Your task to perform on an android device: Search for vegetarian restaurants on Maps Image 0: 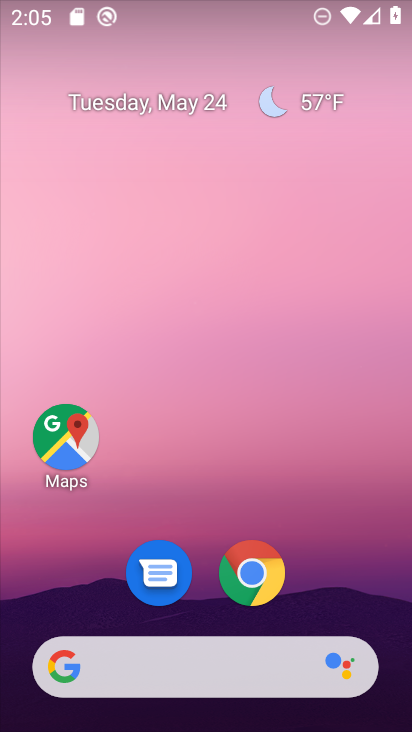
Step 0: drag from (383, 610) to (301, 237)
Your task to perform on an android device: Search for vegetarian restaurants on Maps Image 1: 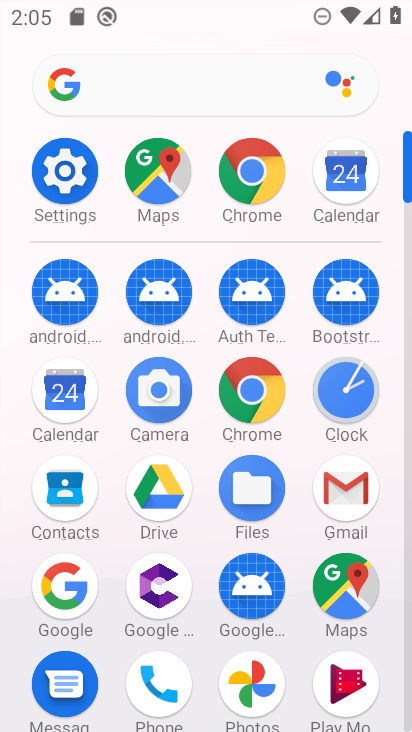
Step 1: click (335, 588)
Your task to perform on an android device: Search for vegetarian restaurants on Maps Image 2: 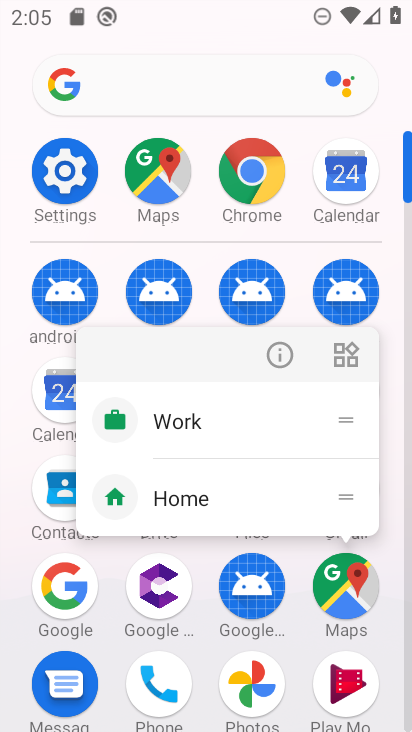
Step 2: click (337, 589)
Your task to perform on an android device: Search for vegetarian restaurants on Maps Image 3: 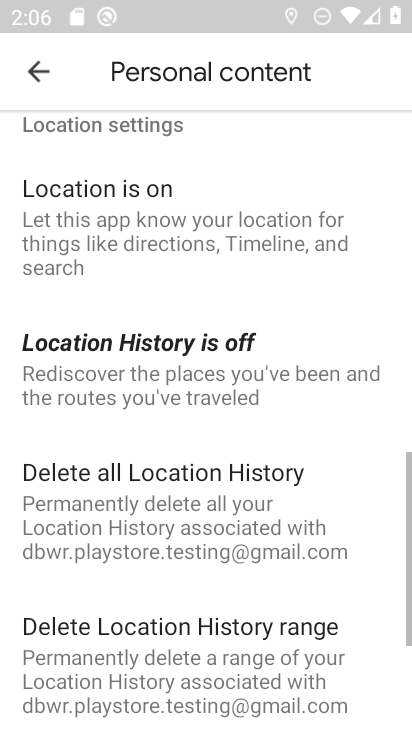
Step 3: click (45, 79)
Your task to perform on an android device: Search for vegetarian restaurants on Maps Image 4: 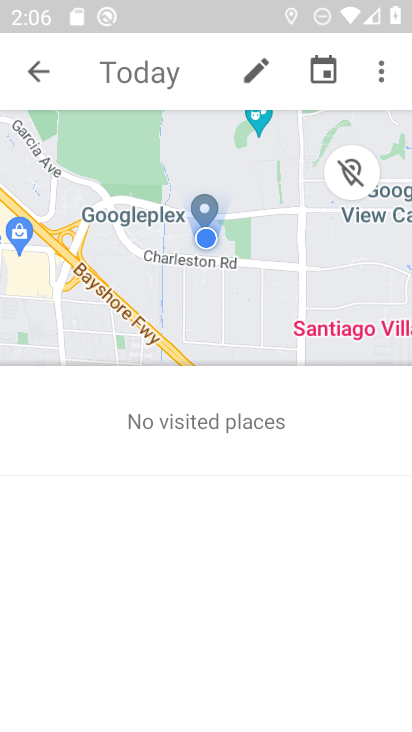
Step 4: click (190, 78)
Your task to perform on an android device: Search for vegetarian restaurants on Maps Image 5: 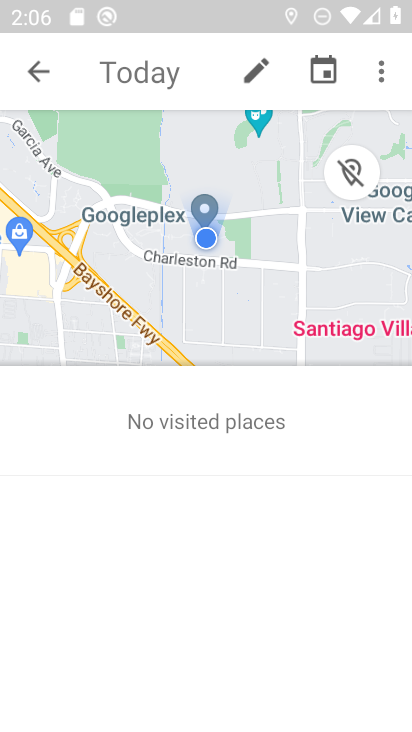
Step 5: click (43, 75)
Your task to perform on an android device: Search for vegetarian restaurants on Maps Image 6: 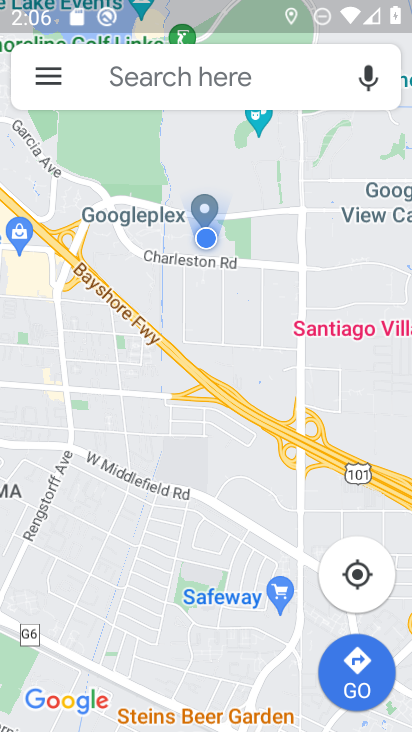
Step 6: click (185, 60)
Your task to perform on an android device: Search for vegetarian restaurants on Maps Image 7: 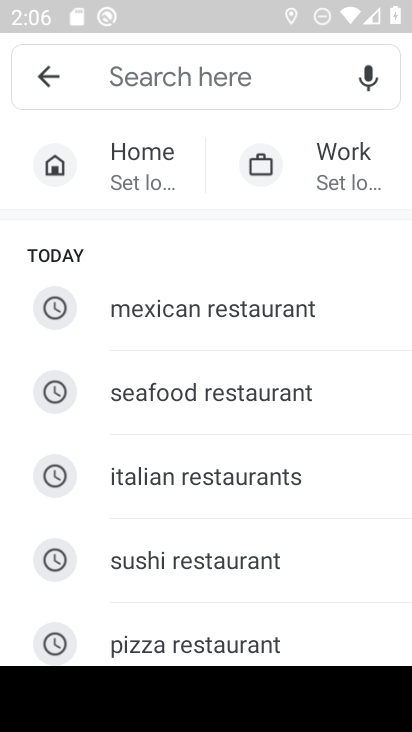
Step 7: type "vegetarian restaurants "
Your task to perform on an android device: Search for vegetarian restaurants on Maps Image 8: 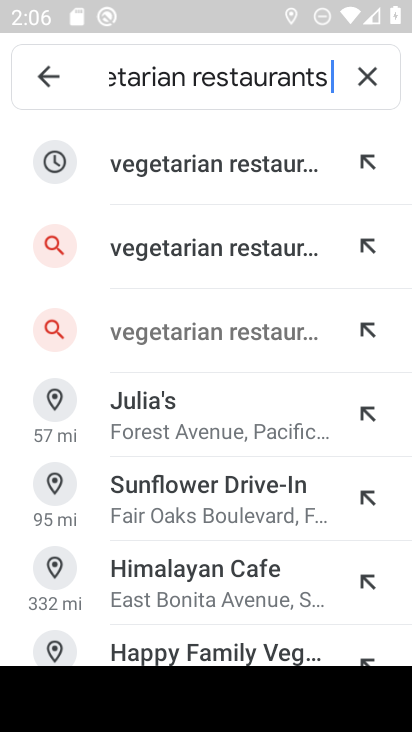
Step 8: click (144, 171)
Your task to perform on an android device: Search for vegetarian restaurants on Maps Image 9: 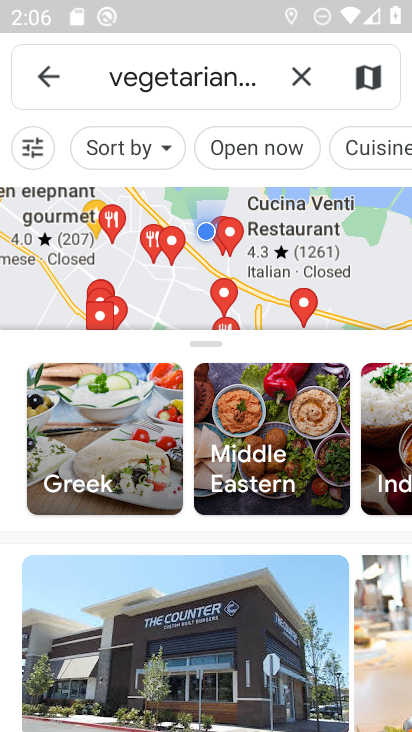
Step 9: task complete